Your task to perform on an android device: Do I have any events tomorrow? Image 0: 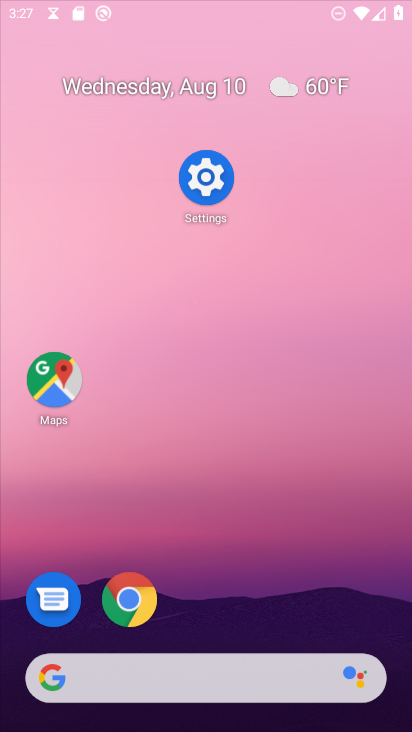
Step 0: press home button
Your task to perform on an android device: Do I have any events tomorrow? Image 1: 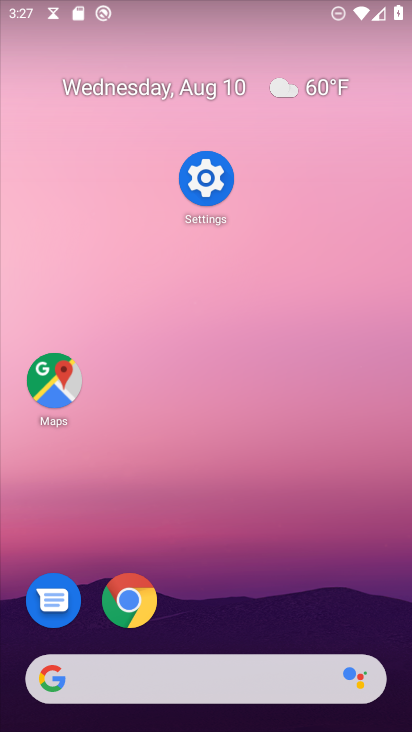
Step 1: drag from (247, 613) to (213, 133)
Your task to perform on an android device: Do I have any events tomorrow? Image 2: 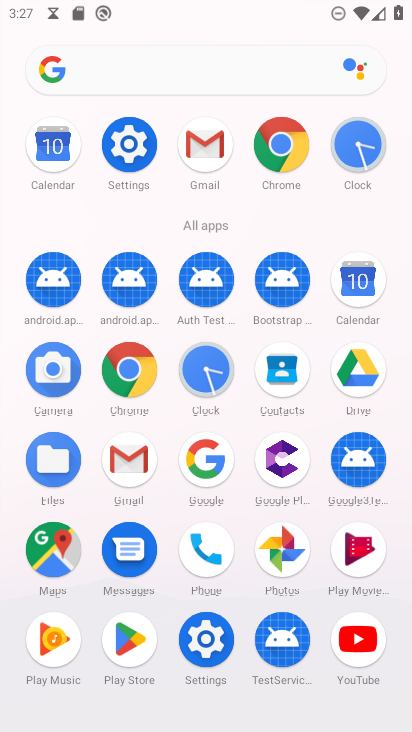
Step 2: click (365, 277)
Your task to perform on an android device: Do I have any events tomorrow? Image 3: 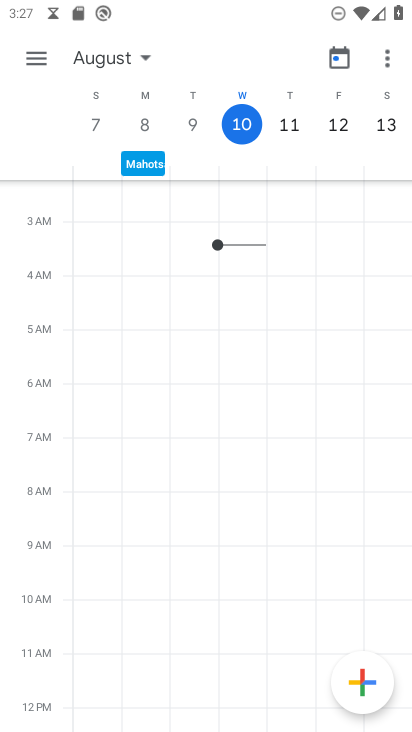
Step 3: click (143, 61)
Your task to perform on an android device: Do I have any events tomorrow? Image 4: 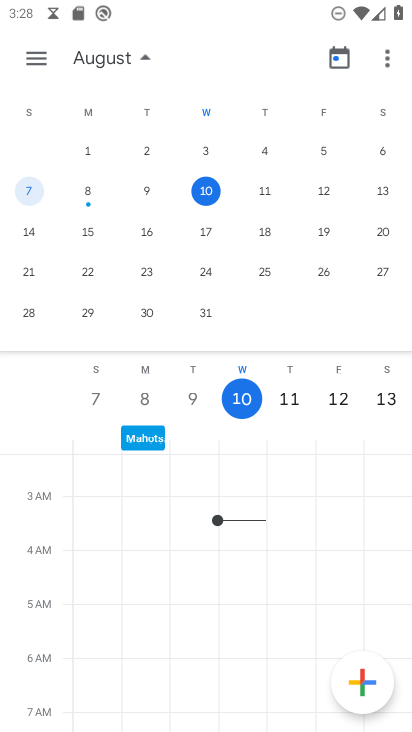
Step 4: click (266, 195)
Your task to perform on an android device: Do I have any events tomorrow? Image 5: 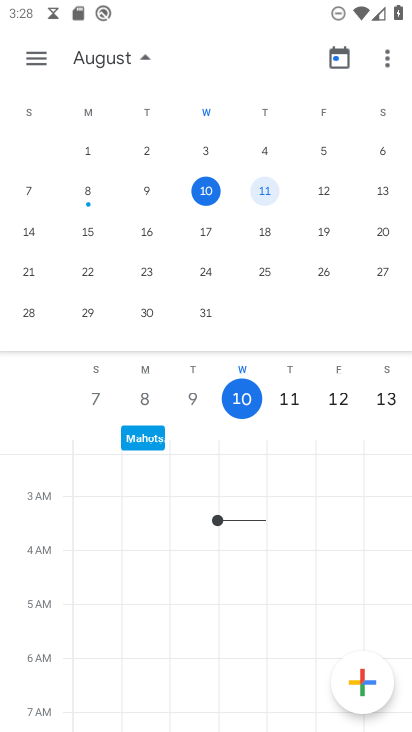
Step 5: click (266, 195)
Your task to perform on an android device: Do I have any events tomorrow? Image 6: 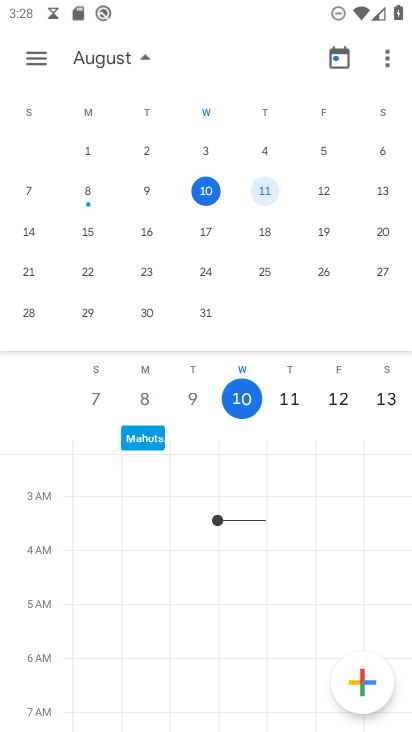
Step 6: click (266, 195)
Your task to perform on an android device: Do I have any events tomorrow? Image 7: 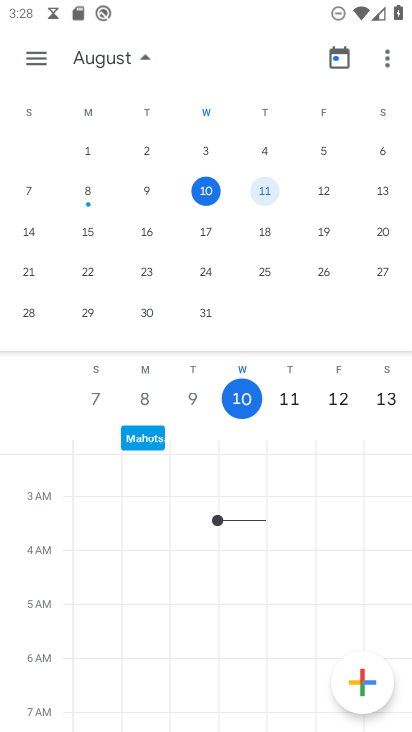
Step 7: click (266, 195)
Your task to perform on an android device: Do I have any events tomorrow? Image 8: 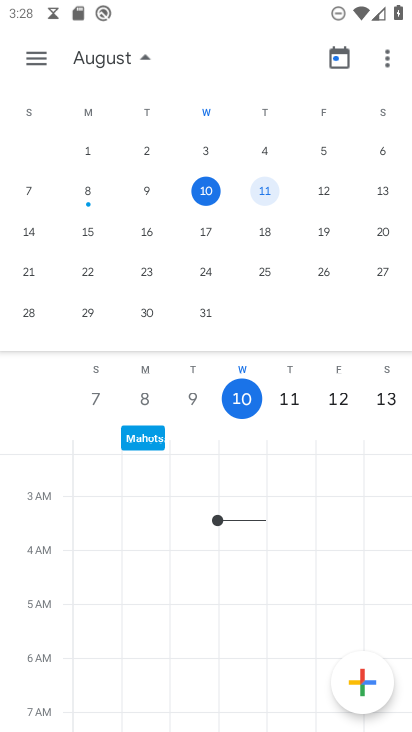
Step 8: click (271, 190)
Your task to perform on an android device: Do I have any events tomorrow? Image 9: 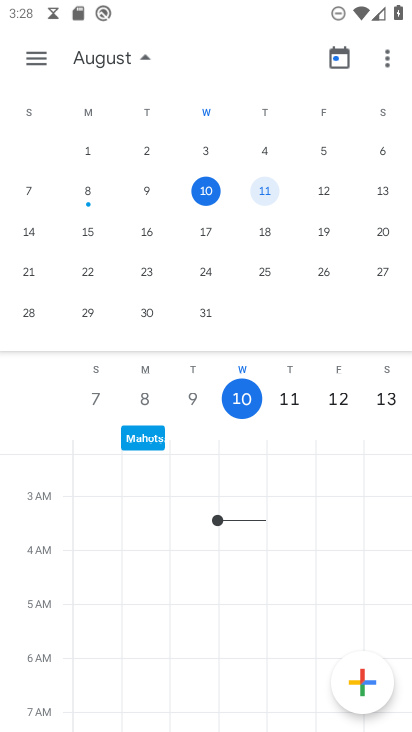
Step 9: click (271, 190)
Your task to perform on an android device: Do I have any events tomorrow? Image 10: 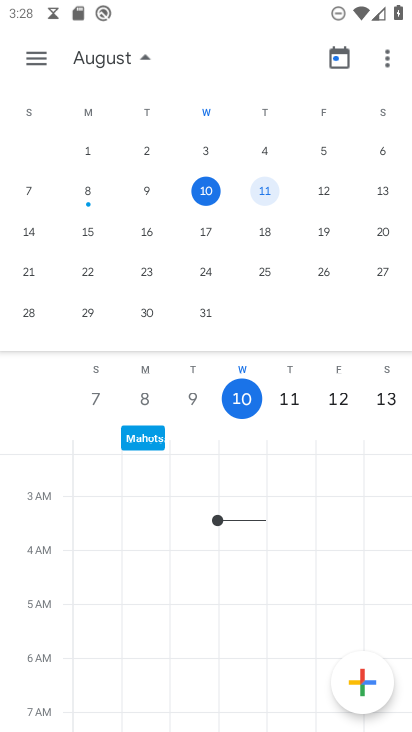
Step 10: click (263, 196)
Your task to perform on an android device: Do I have any events tomorrow? Image 11: 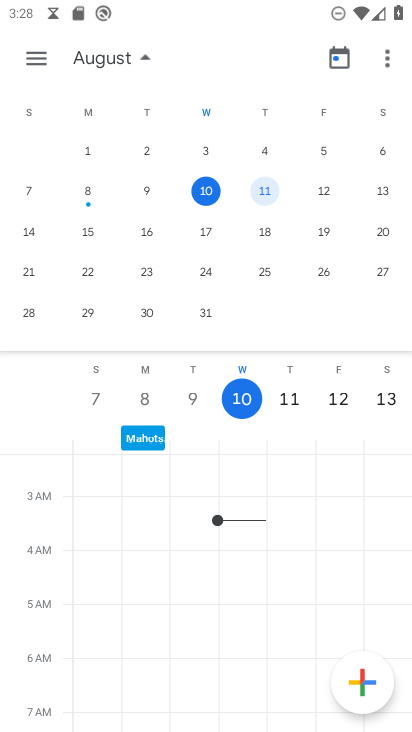
Step 11: click (263, 196)
Your task to perform on an android device: Do I have any events tomorrow? Image 12: 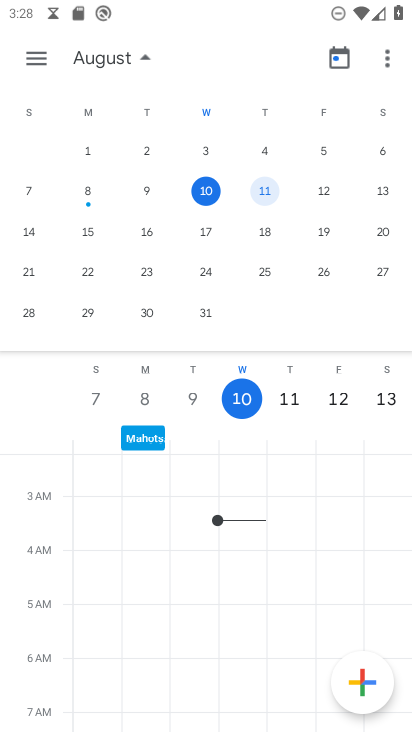
Step 12: click (270, 195)
Your task to perform on an android device: Do I have any events tomorrow? Image 13: 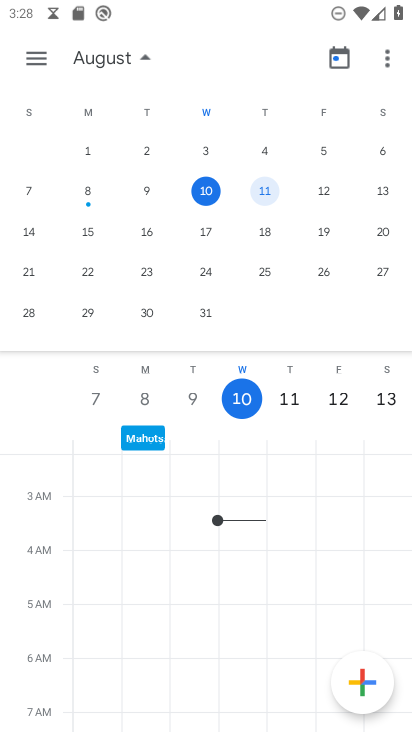
Step 13: click (293, 401)
Your task to perform on an android device: Do I have any events tomorrow? Image 14: 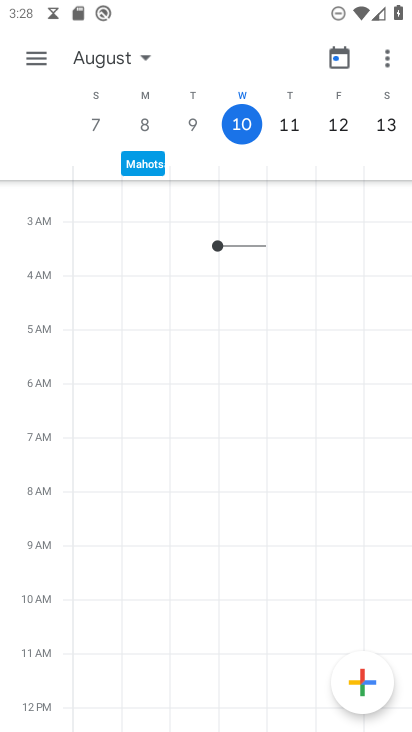
Step 14: click (288, 123)
Your task to perform on an android device: Do I have any events tomorrow? Image 15: 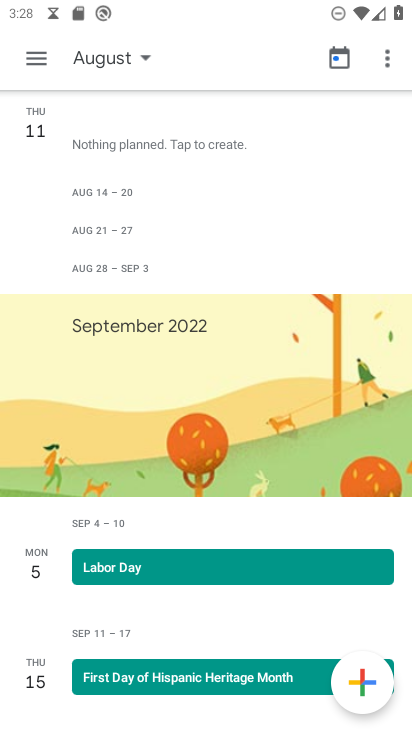
Step 15: task complete